Your task to perform on an android device: open app "Upside-Cash back on gas & food" (install if not already installed), go to login, and select forgot password Image 0: 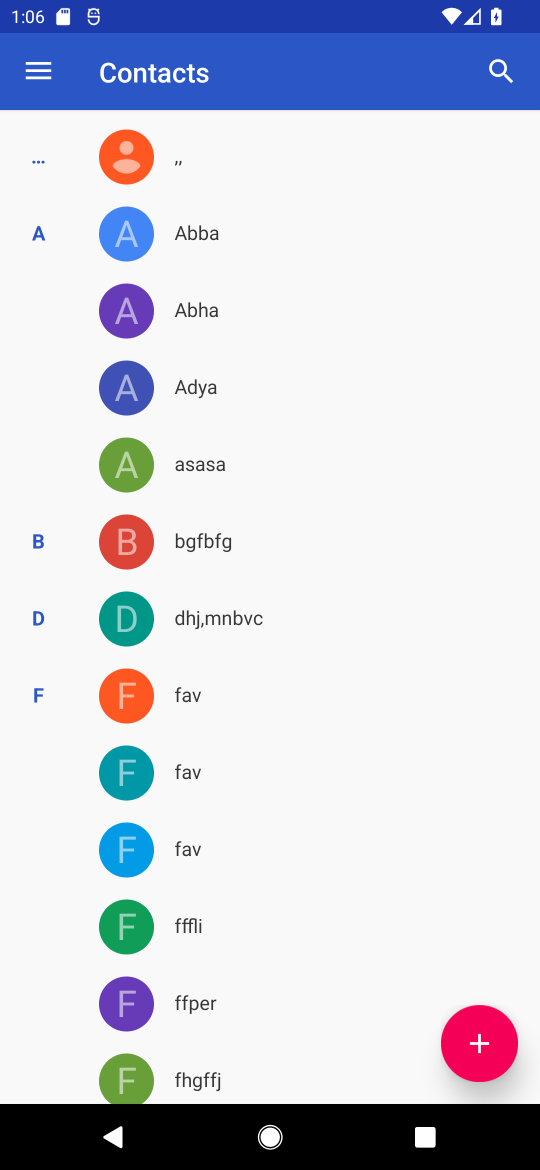
Step 0: press home button
Your task to perform on an android device: open app "Upside-Cash back on gas & food" (install if not already installed), go to login, and select forgot password Image 1: 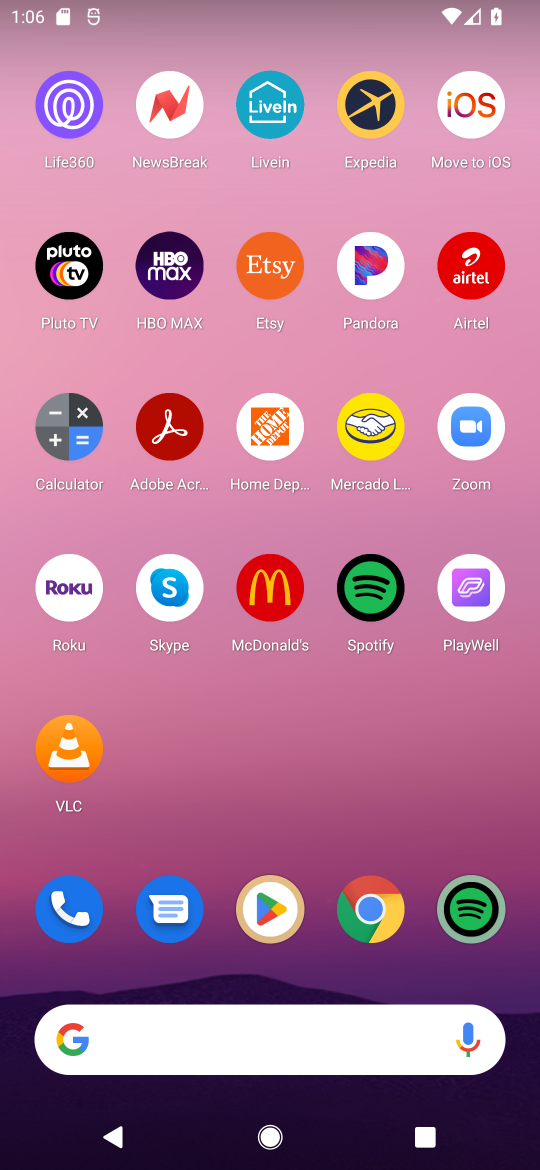
Step 1: click (241, 927)
Your task to perform on an android device: open app "Upside-Cash back on gas & food" (install if not already installed), go to login, and select forgot password Image 2: 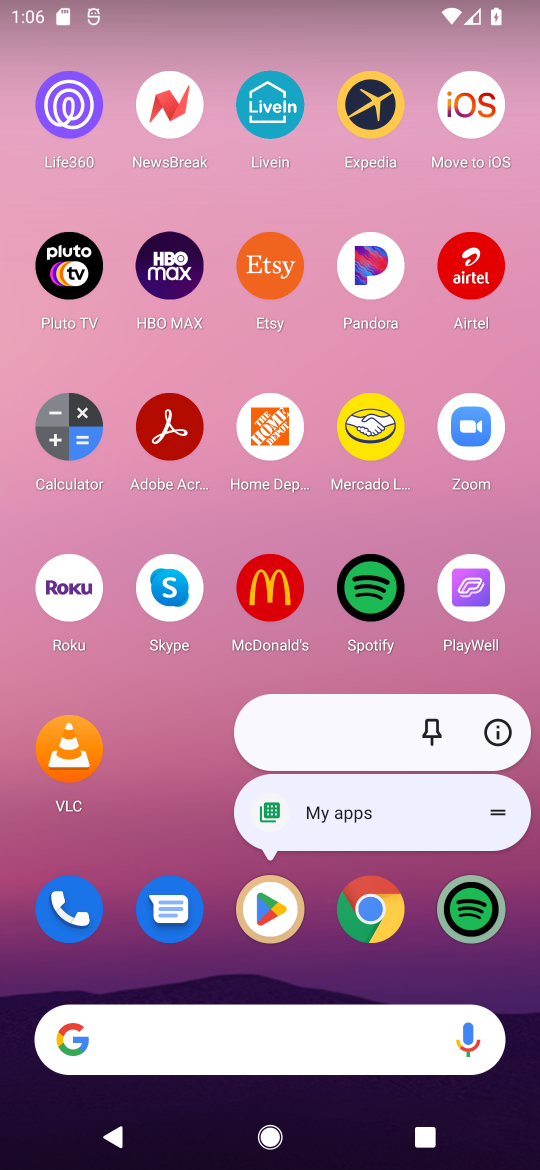
Step 2: click (268, 918)
Your task to perform on an android device: open app "Upside-Cash back on gas & food" (install if not already installed), go to login, and select forgot password Image 3: 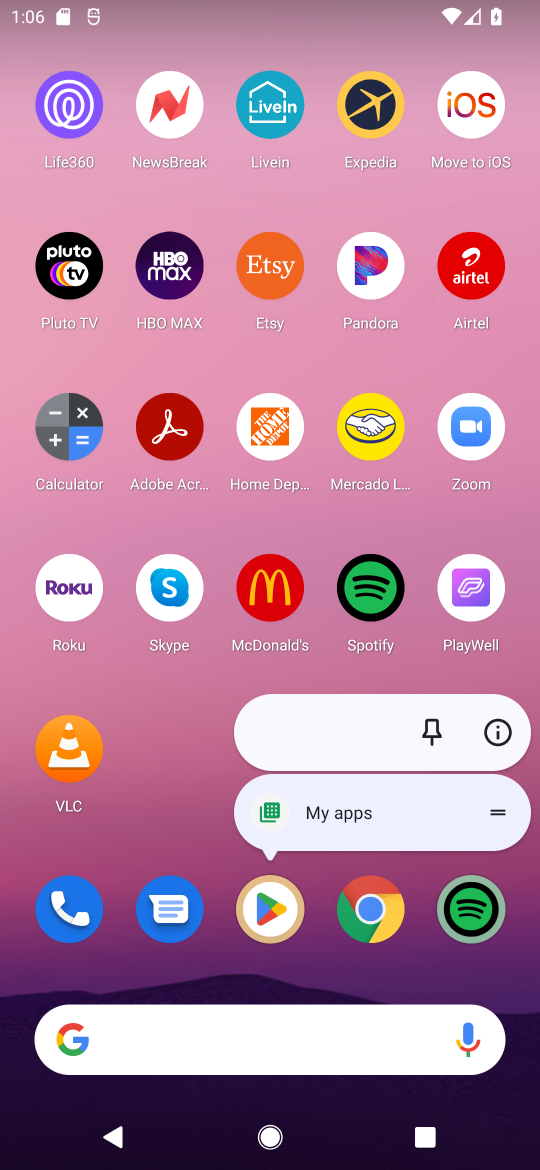
Step 3: click (266, 919)
Your task to perform on an android device: open app "Upside-Cash back on gas & food" (install if not already installed), go to login, and select forgot password Image 4: 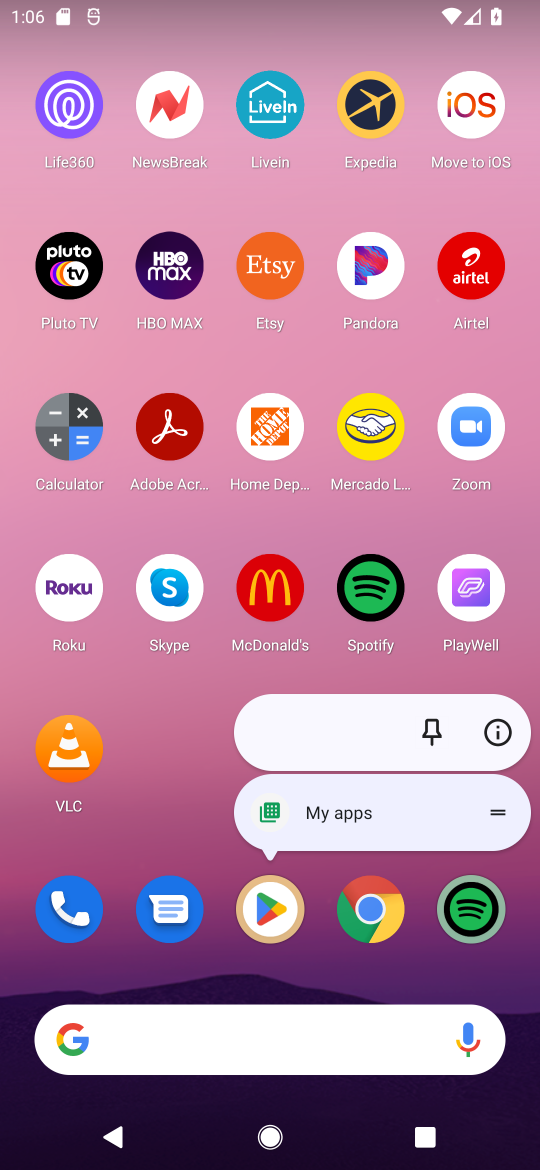
Step 4: click (284, 896)
Your task to perform on an android device: open app "Upside-Cash back on gas & food" (install if not already installed), go to login, and select forgot password Image 5: 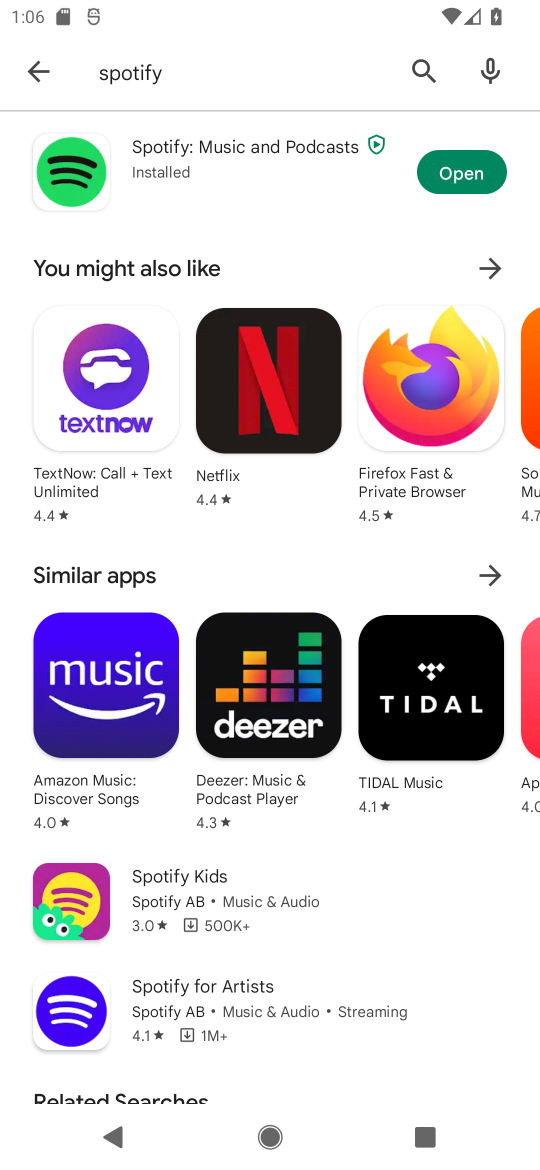
Step 5: click (416, 67)
Your task to perform on an android device: open app "Upside-Cash back on gas & food" (install if not already installed), go to login, and select forgot password Image 6: 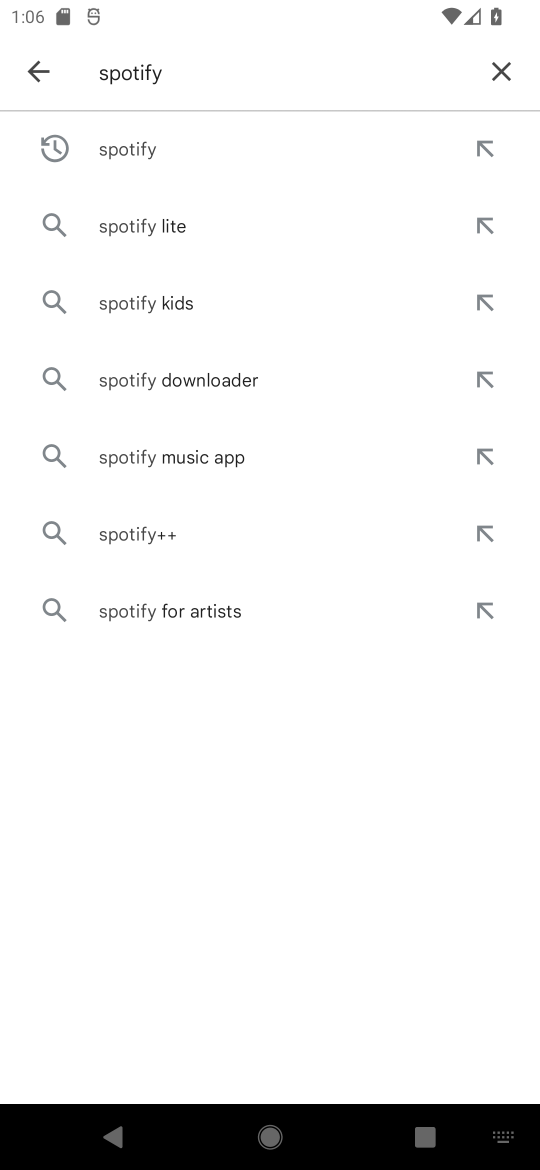
Step 6: click (509, 65)
Your task to perform on an android device: open app "Upside-Cash back on gas & food" (install if not already installed), go to login, and select forgot password Image 7: 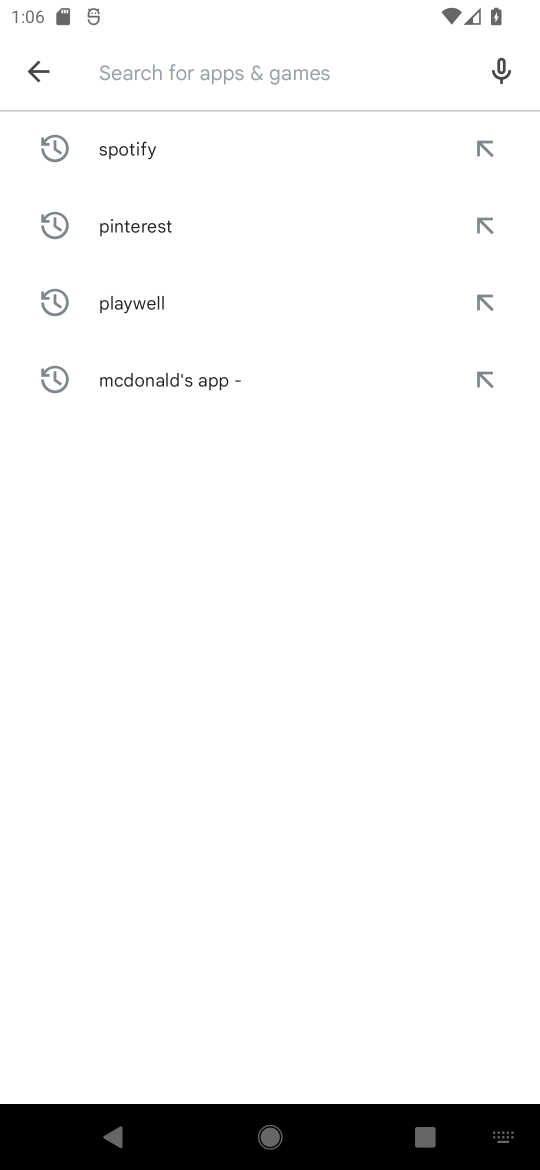
Step 7: click (235, 72)
Your task to perform on an android device: open app "Upside-Cash back on gas & food" (install if not already installed), go to login, and select forgot password Image 8: 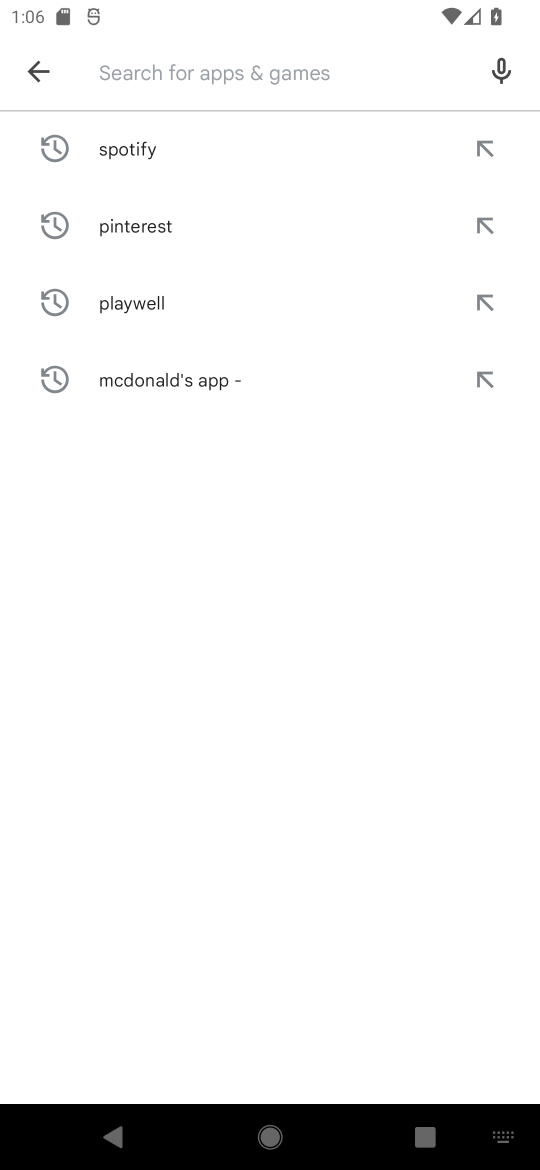
Step 8: type "upside"
Your task to perform on an android device: open app "Upside-Cash back on gas & food" (install if not already installed), go to login, and select forgot password Image 9: 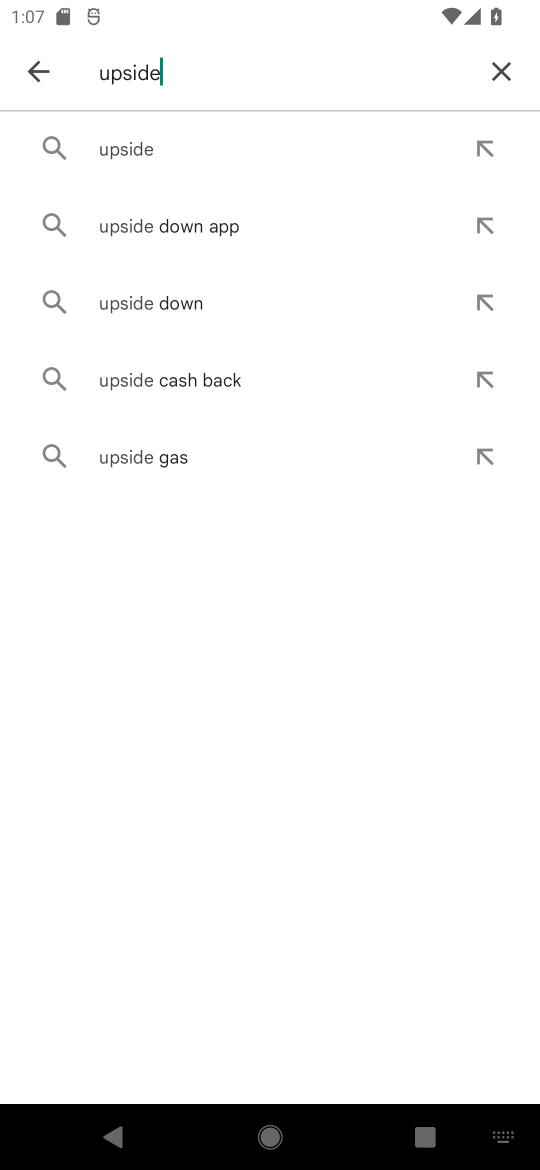
Step 9: click (154, 149)
Your task to perform on an android device: open app "Upside-Cash back on gas & food" (install if not already installed), go to login, and select forgot password Image 10: 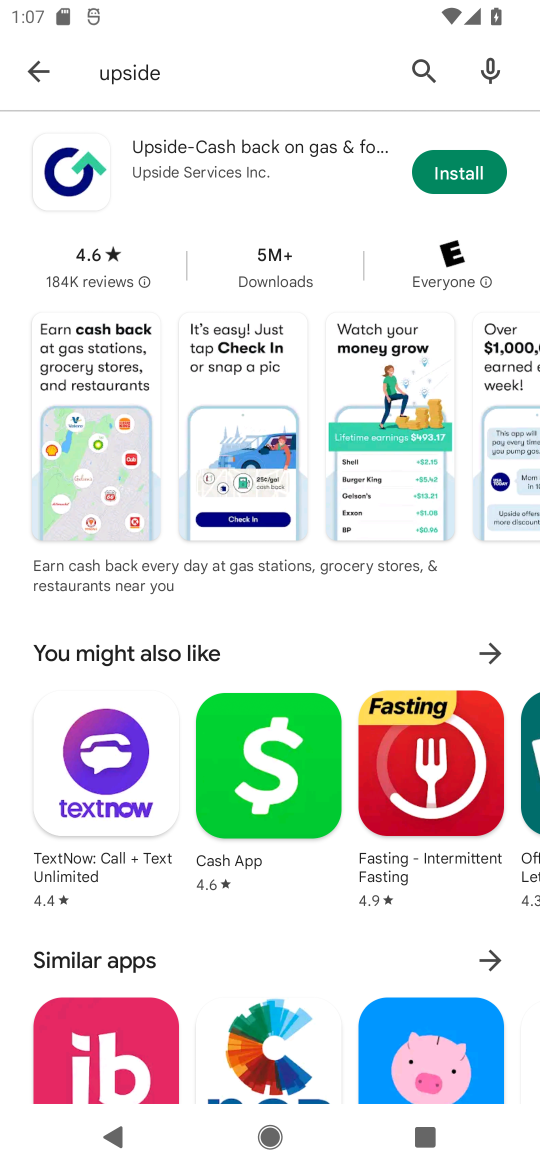
Step 10: click (483, 182)
Your task to perform on an android device: open app "Upside-Cash back on gas & food" (install if not already installed), go to login, and select forgot password Image 11: 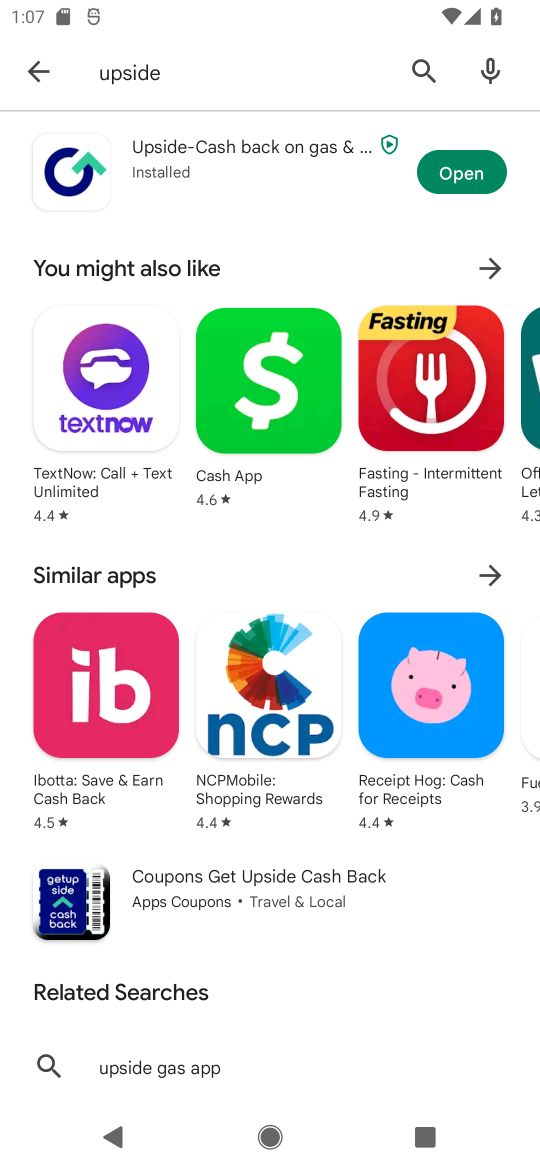
Step 11: click (463, 169)
Your task to perform on an android device: open app "Upside-Cash back on gas & food" (install if not already installed), go to login, and select forgot password Image 12: 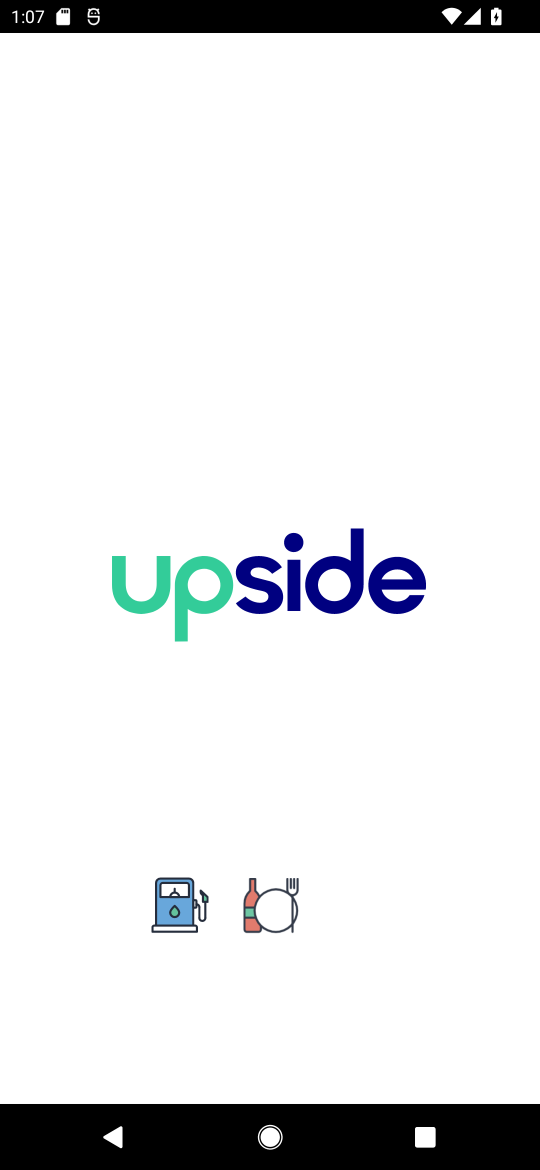
Step 12: task complete